Your task to perform on an android device: clear history in the chrome app Image 0: 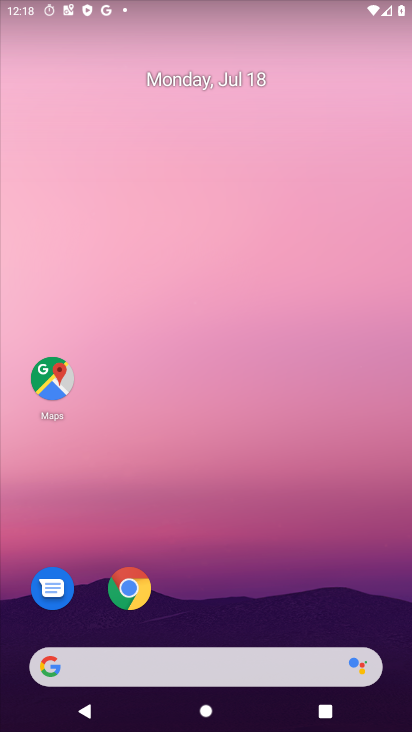
Step 0: click (113, 596)
Your task to perform on an android device: clear history in the chrome app Image 1: 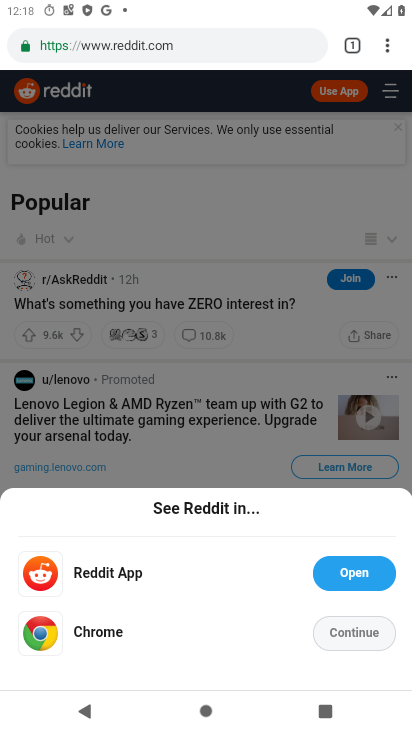
Step 1: click (384, 37)
Your task to perform on an android device: clear history in the chrome app Image 2: 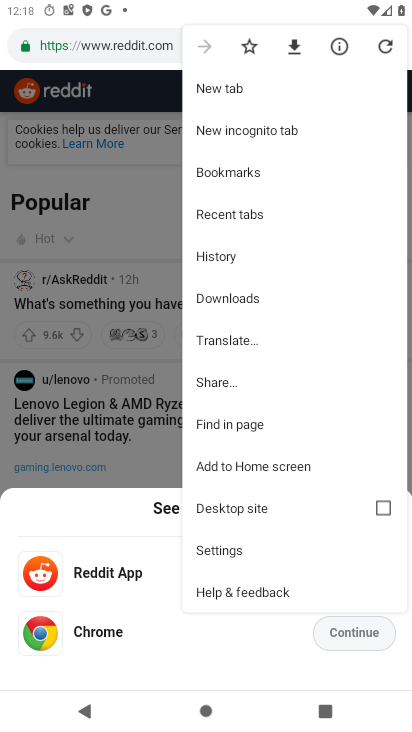
Step 2: click (204, 256)
Your task to perform on an android device: clear history in the chrome app Image 3: 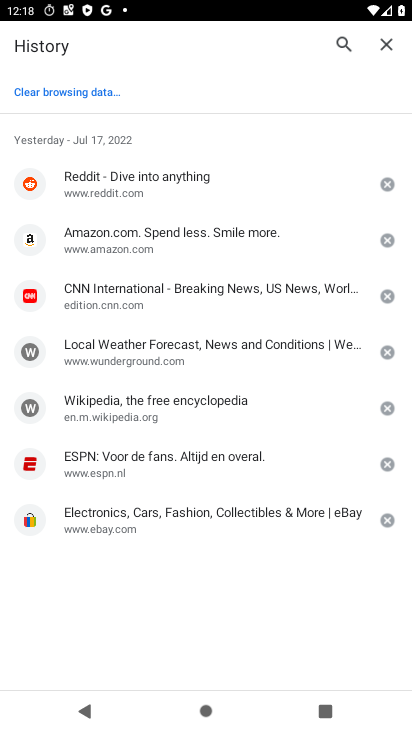
Step 3: click (78, 92)
Your task to perform on an android device: clear history in the chrome app Image 4: 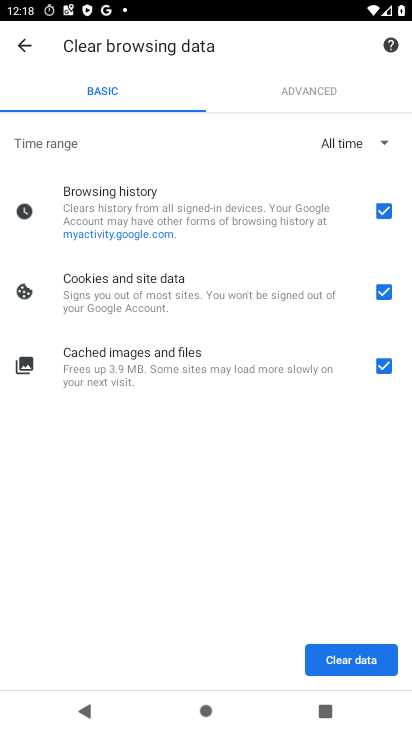
Step 4: click (362, 649)
Your task to perform on an android device: clear history in the chrome app Image 5: 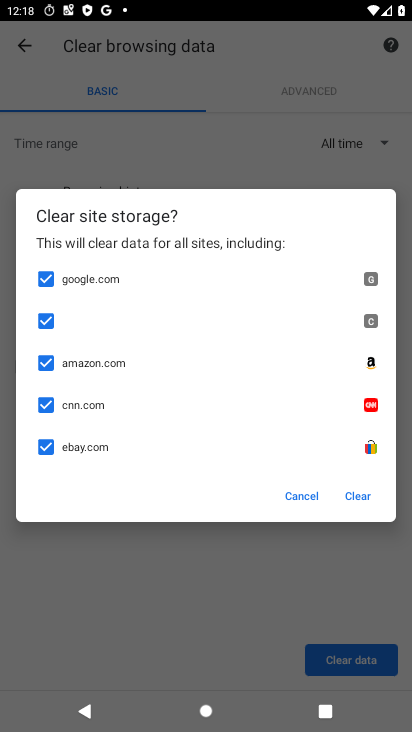
Step 5: click (371, 496)
Your task to perform on an android device: clear history in the chrome app Image 6: 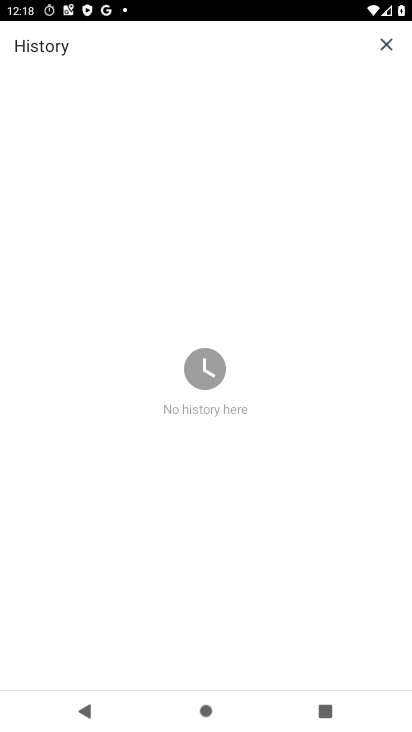
Step 6: task complete